Your task to perform on an android device: set default search engine in the chrome app Image 0: 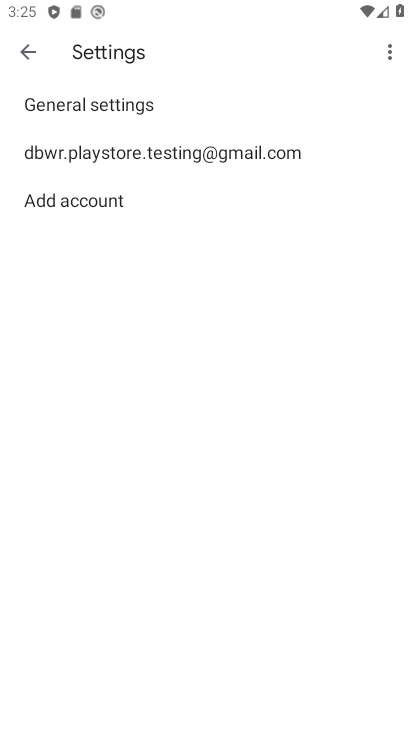
Step 0: click (239, 159)
Your task to perform on an android device: set default search engine in the chrome app Image 1: 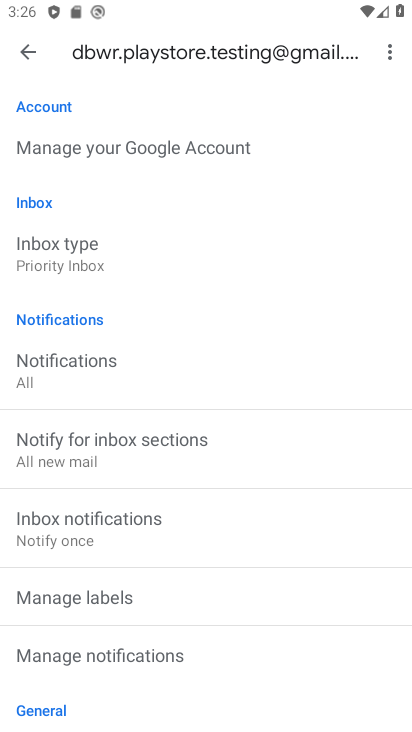
Step 1: drag from (186, 445) to (269, 161)
Your task to perform on an android device: set default search engine in the chrome app Image 2: 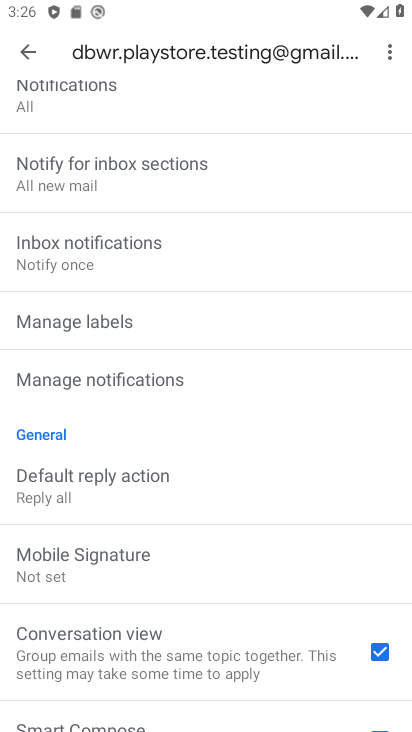
Step 2: press home button
Your task to perform on an android device: set default search engine in the chrome app Image 3: 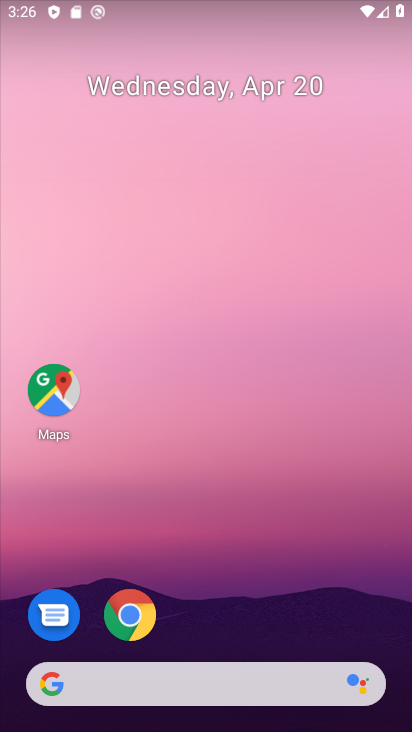
Step 3: click (134, 604)
Your task to perform on an android device: set default search engine in the chrome app Image 4: 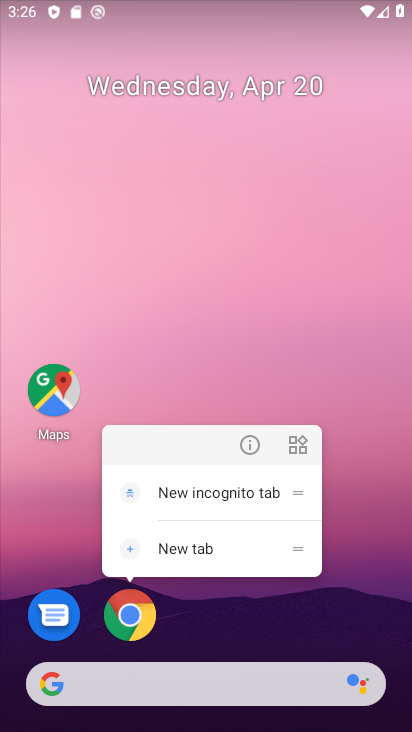
Step 4: click (248, 440)
Your task to perform on an android device: set default search engine in the chrome app Image 5: 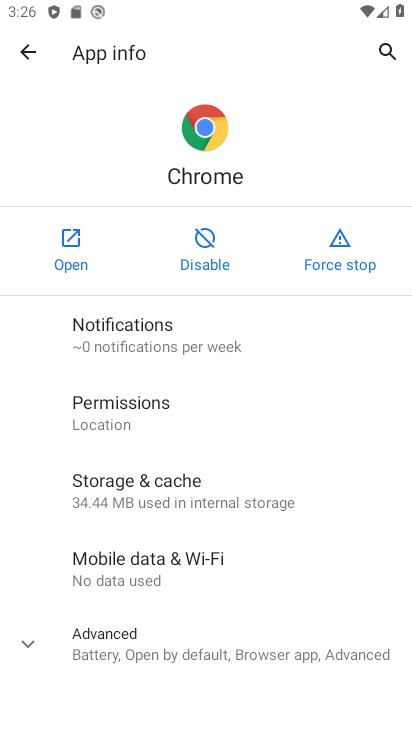
Step 5: click (64, 240)
Your task to perform on an android device: set default search engine in the chrome app Image 6: 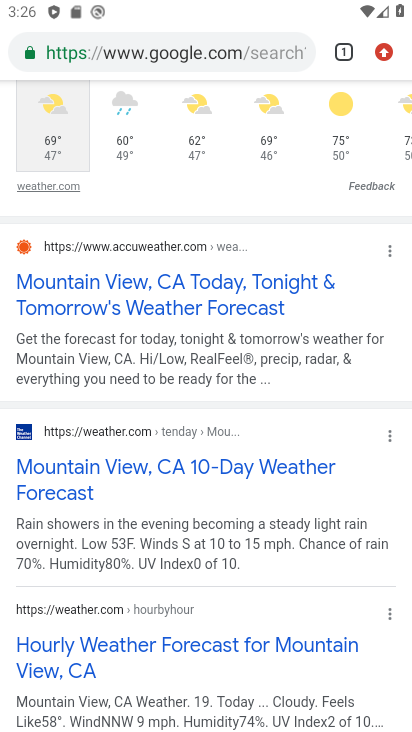
Step 6: drag from (242, 199) to (390, 535)
Your task to perform on an android device: set default search engine in the chrome app Image 7: 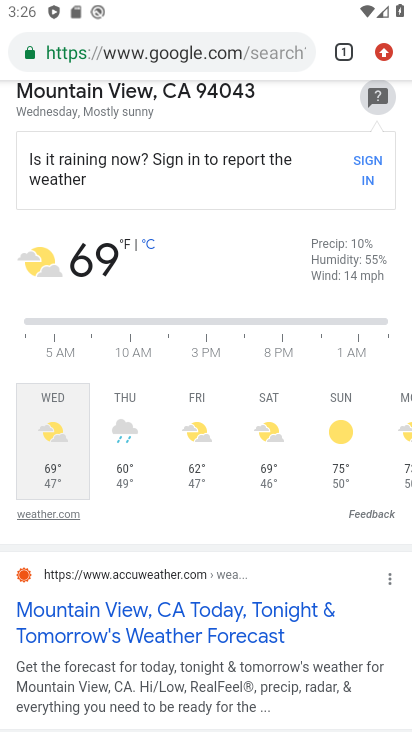
Step 7: drag from (211, 214) to (282, 552)
Your task to perform on an android device: set default search engine in the chrome app Image 8: 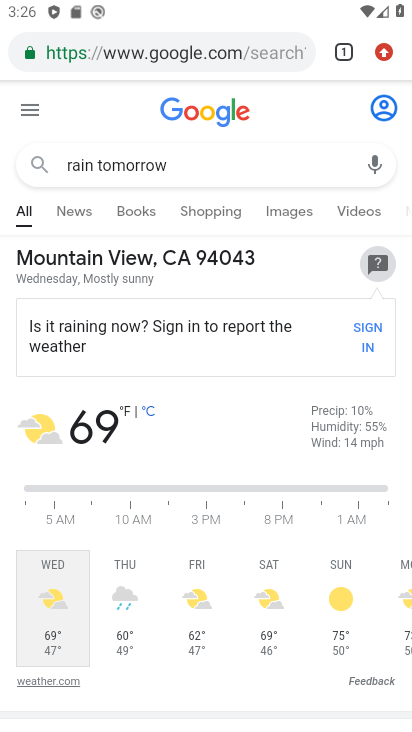
Step 8: click (319, 550)
Your task to perform on an android device: set default search engine in the chrome app Image 9: 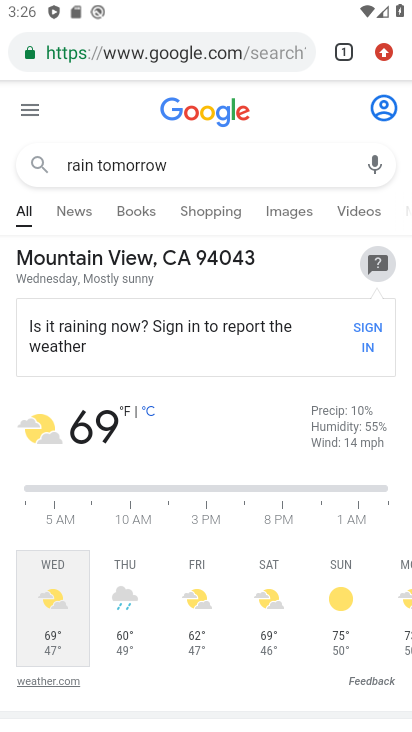
Step 9: drag from (373, 48) to (256, 639)
Your task to perform on an android device: set default search engine in the chrome app Image 10: 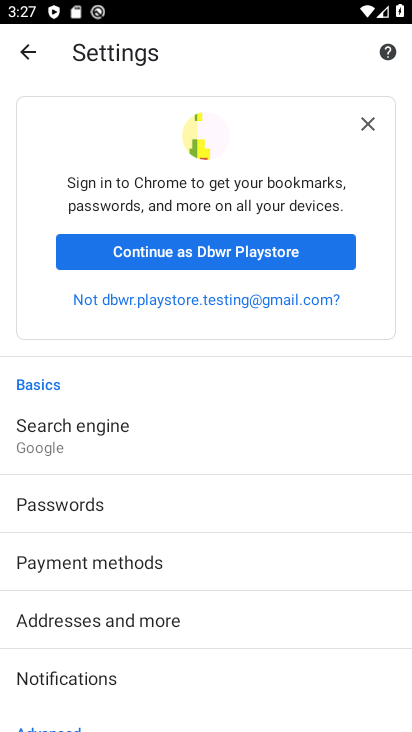
Step 10: click (134, 437)
Your task to perform on an android device: set default search engine in the chrome app Image 11: 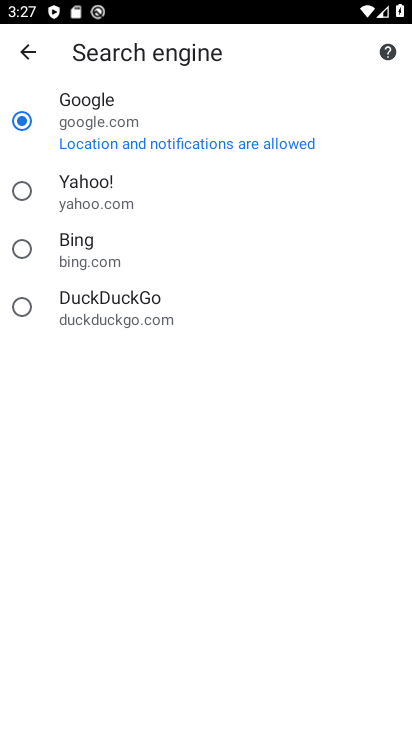
Step 11: task complete